Your task to perform on an android device: open app "Spotify" Image 0: 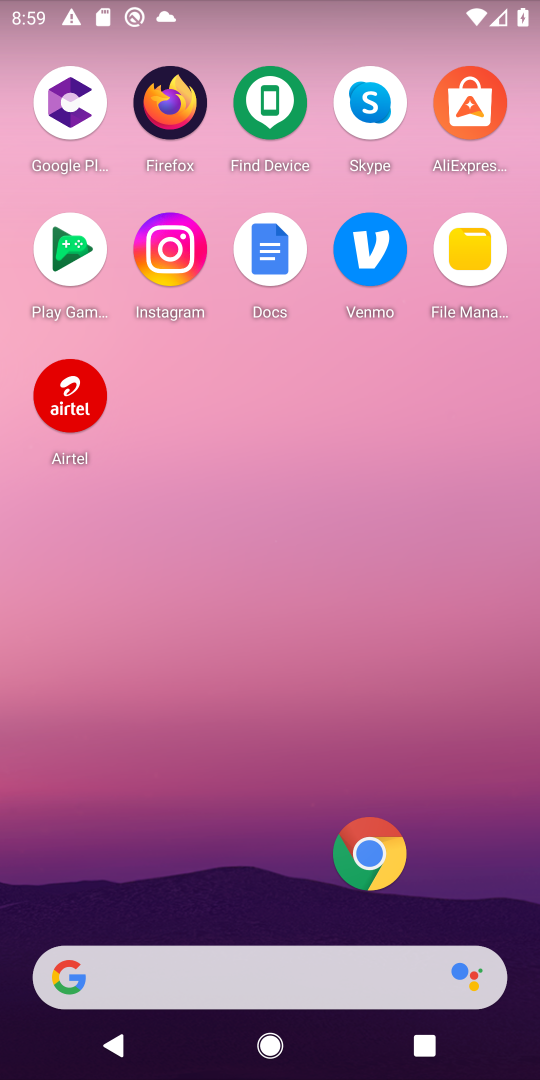
Step 0: click (300, 172)
Your task to perform on an android device: open app "Spotify" Image 1: 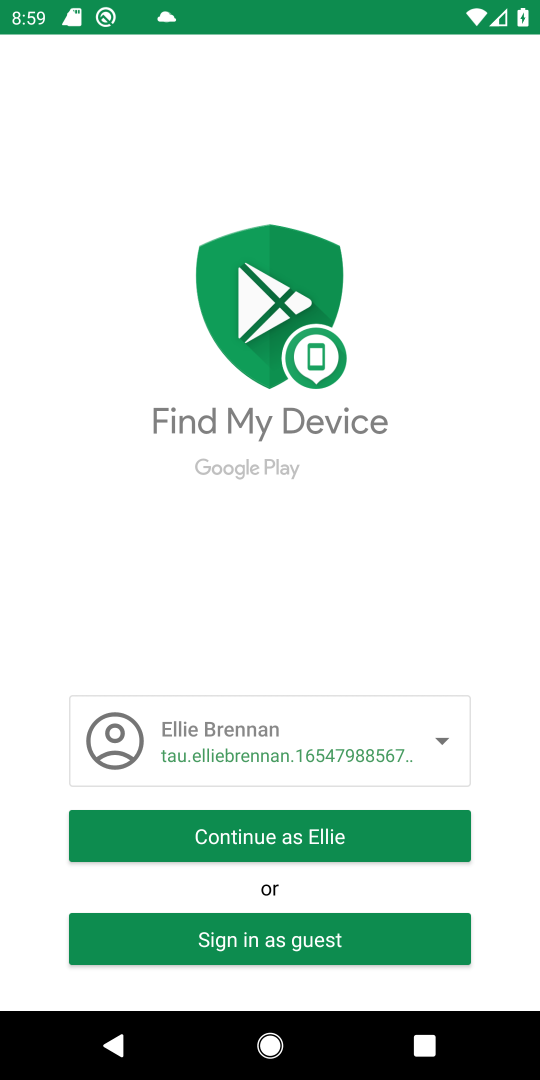
Step 1: click (255, 90)
Your task to perform on an android device: open app "Spotify" Image 2: 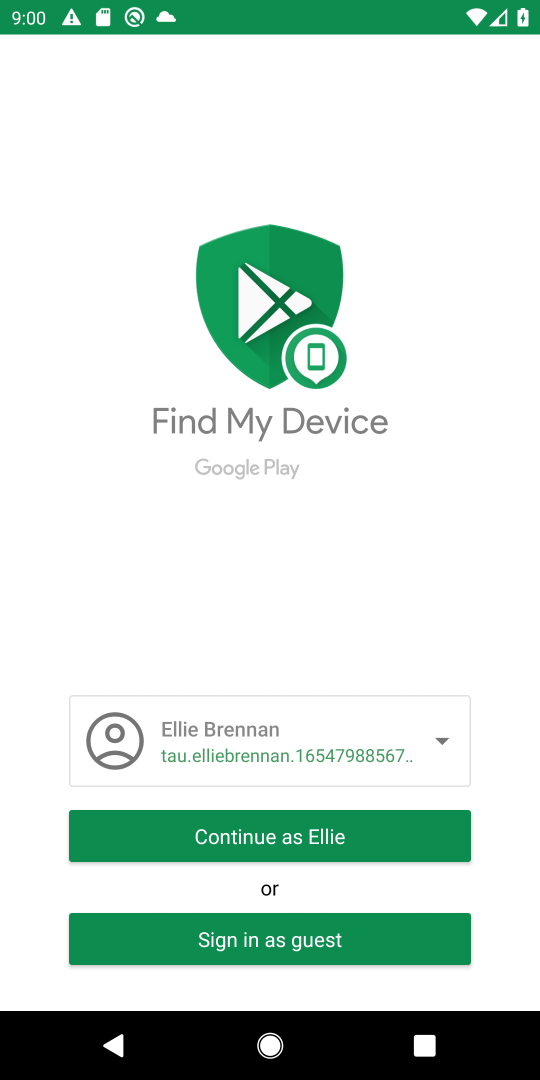
Step 2: press home button
Your task to perform on an android device: open app "Spotify" Image 3: 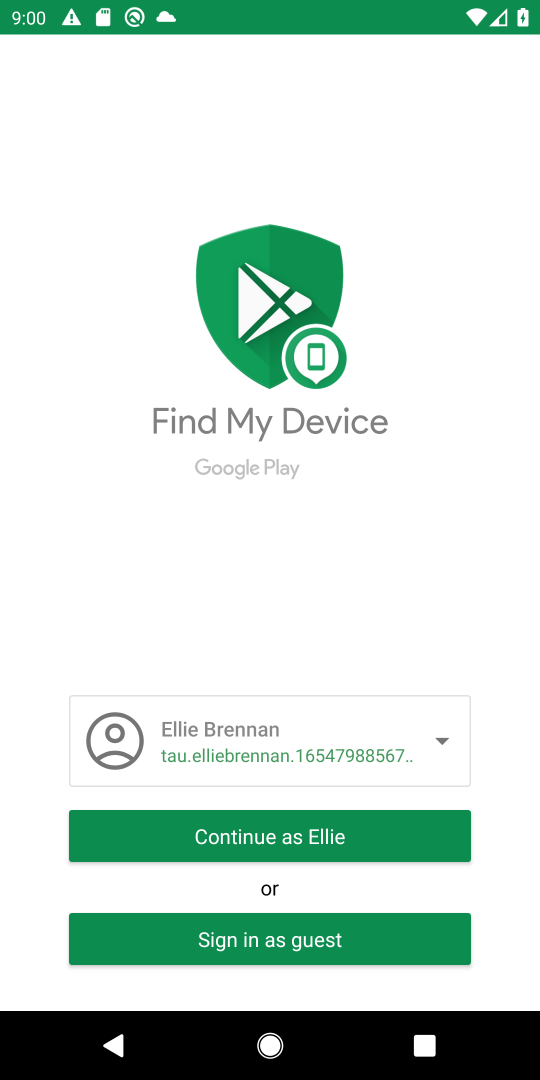
Step 3: drag from (255, 90) to (477, 805)
Your task to perform on an android device: open app "Spotify" Image 4: 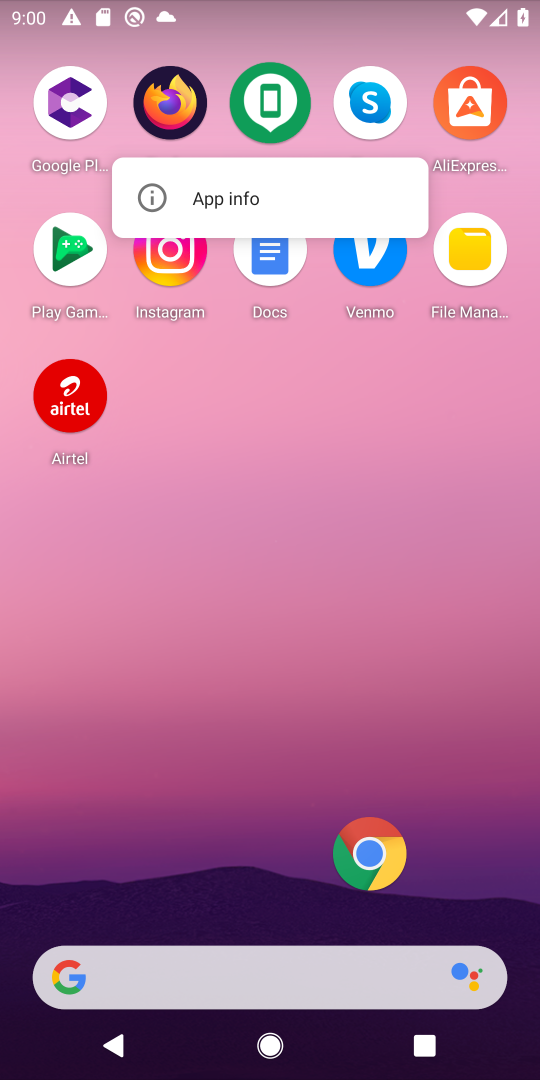
Step 4: drag from (266, 786) to (279, 317)
Your task to perform on an android device: open app "Spotify" Image 5: 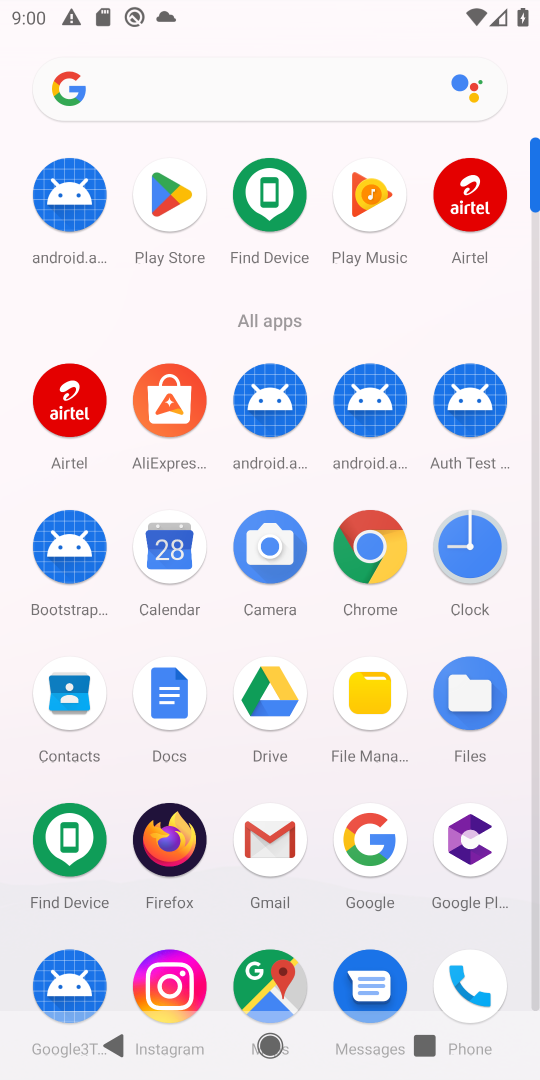
Step 5: click (166, 198)
Your task to perform on an android device: open app "Spotify" Image 6: 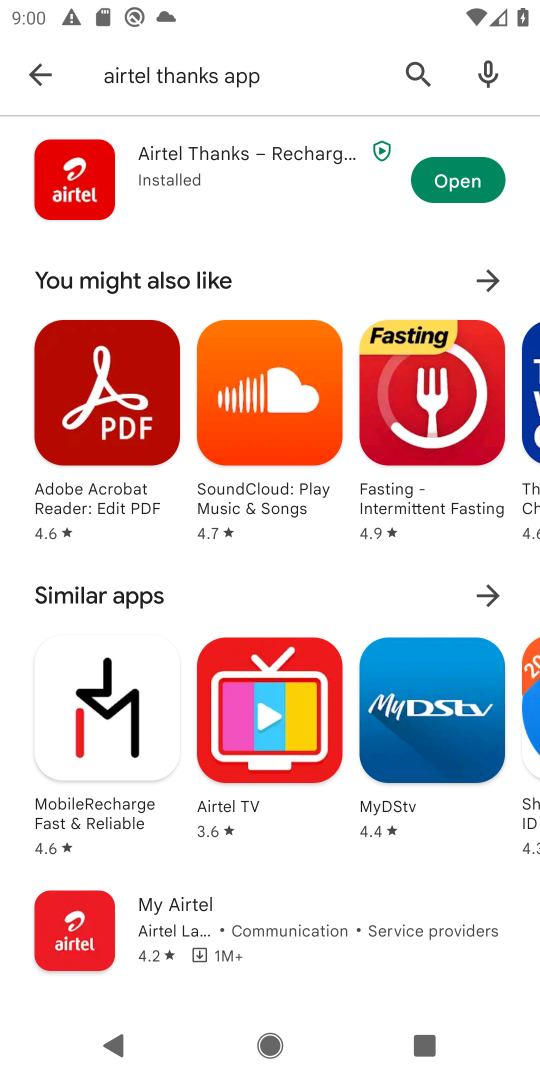
Step 6: click (435, 189)
Your task to perform on an android device: open app "Spotify" Image 7: 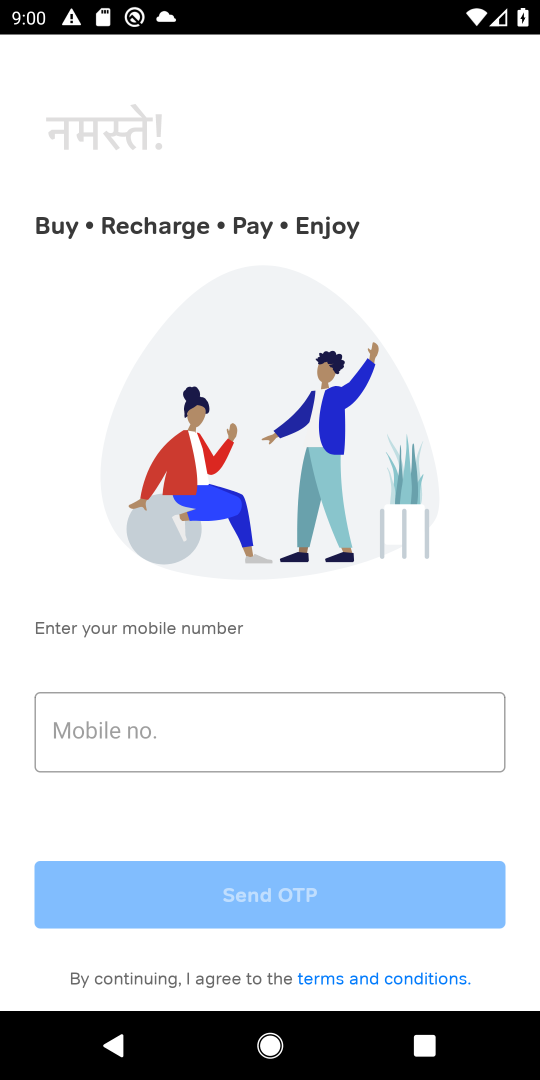
Step 7: task complete